Your task to perform on an android device: turn on notifications settings in the gmail app Image 0: 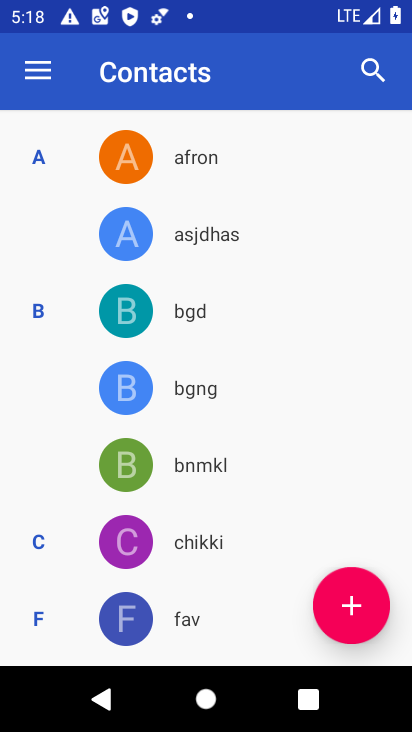
Step 0: press home button
Your task to perform on an android device: turn on notifications settings in the gmail app Image 1: 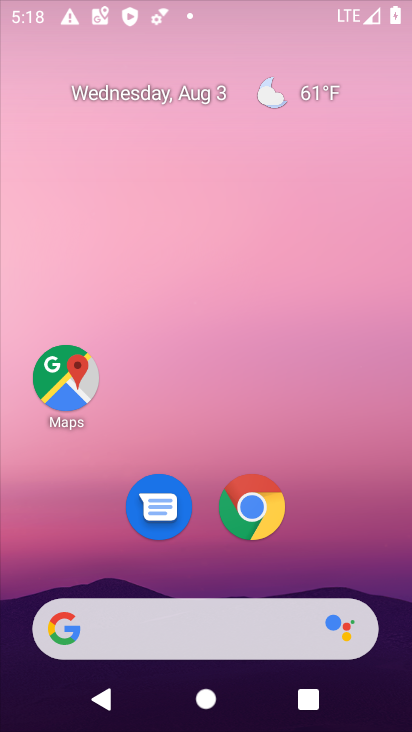
Step 1: drag from (348, 465) to (374, 32)
Your task to perform on an android device: turn on notifications settings in the gmail app Image 2: 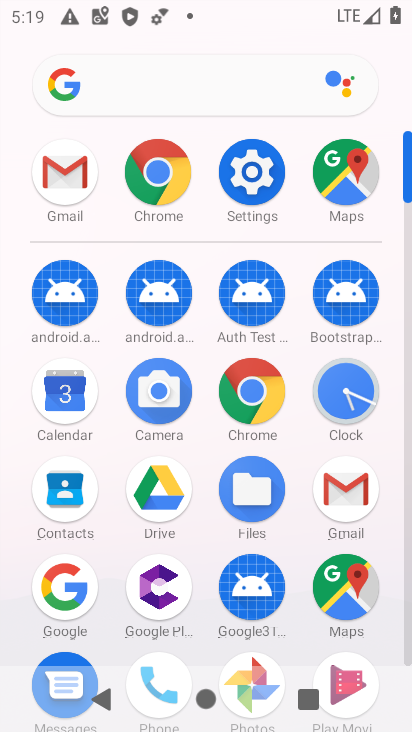
Step 2: click (61, 180)
Your task to perform on an android device: turn on notifications settings in the gmail app Image 3: 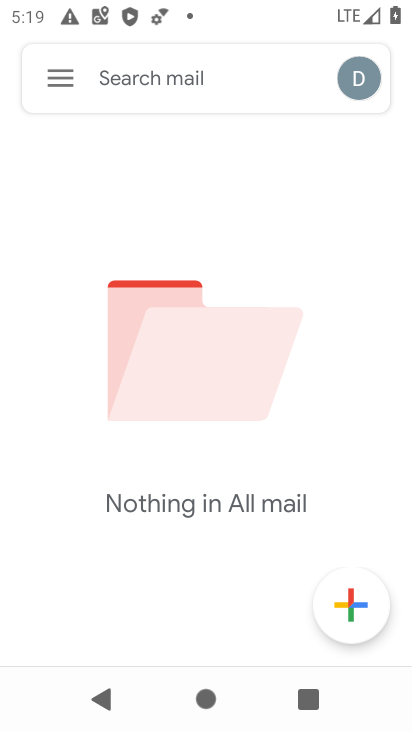
Step 3: click (69, 79)
Your task to perform on an android device: turn on notifications settings in the gmail app Image 4: 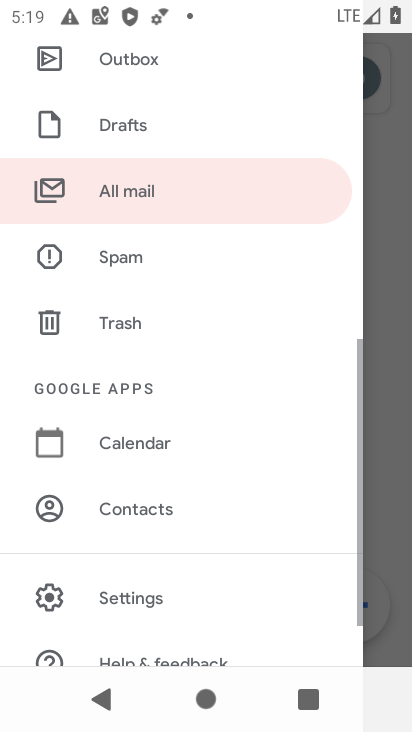
Step 4: drag from (164, 536) to (228, 103)
Your task to perform on an android device: turn on notifications settings in the gmail app Image 5: 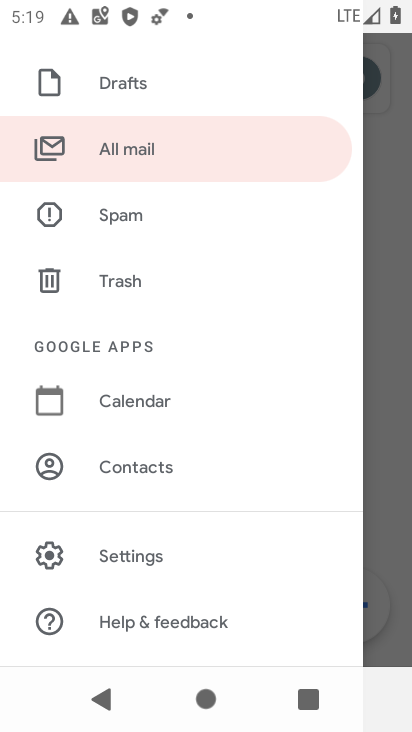
Step 5: click (161, 560)
Your task to perform on an android device: turn on notifications settings in the gmail app Image 6: 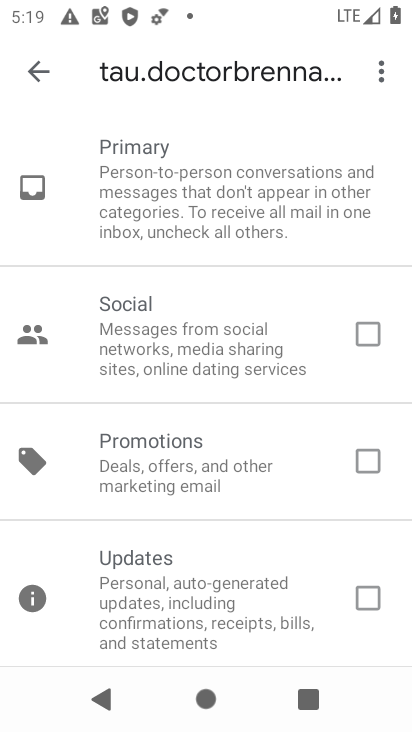
Step 6: drag from (173, 178) to (202, 531)
Your task to perform on an android device: turn on notifications settings in the gmail app Image 7: 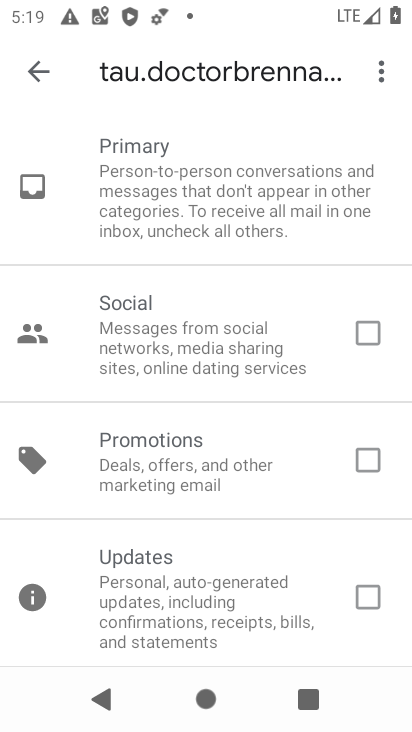
Step 7: click (49, 58)
Your task to perform on an android device: turn on notifications settings in the gmail app Image 8: 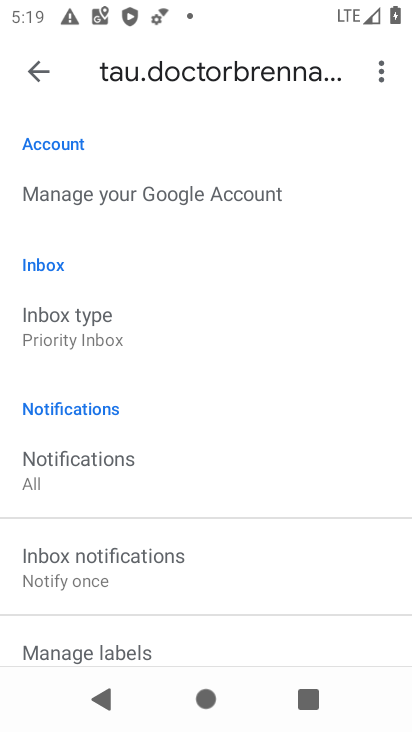
Step 8: drag from (309, 593) to (306, 169)
Your task to perform on an android device: turn on notifications settings in the gmail app Image 9: 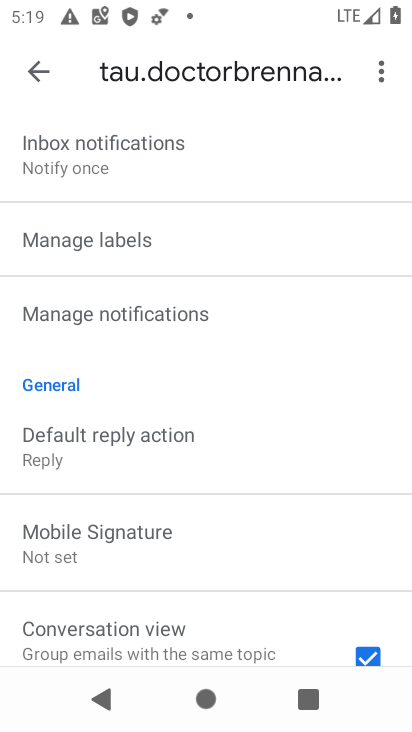
Step 9: click (179, 312)
Your task to perform on an android device: turn on notifications settings in the gmail app Image 10: 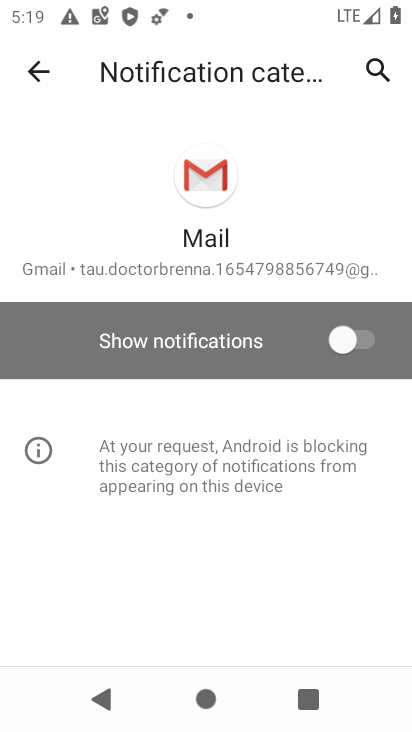
Step 10: click (347, 328)
Your task to perform on an android device: turn on notifications settings in the gmail app Image 11: 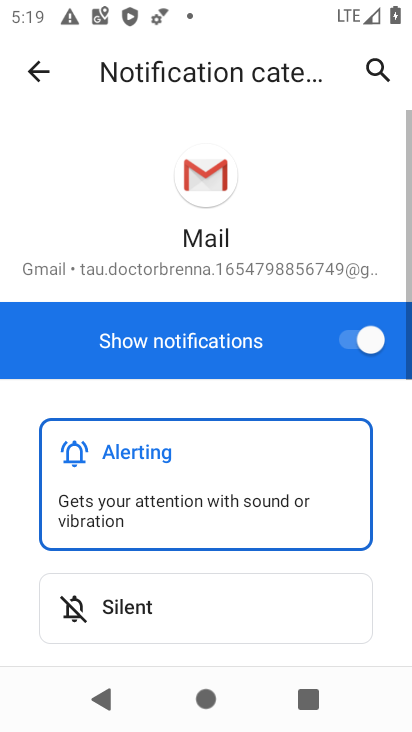
Step 11: task complete